Your task to perform on an android device: check storage Image 0: 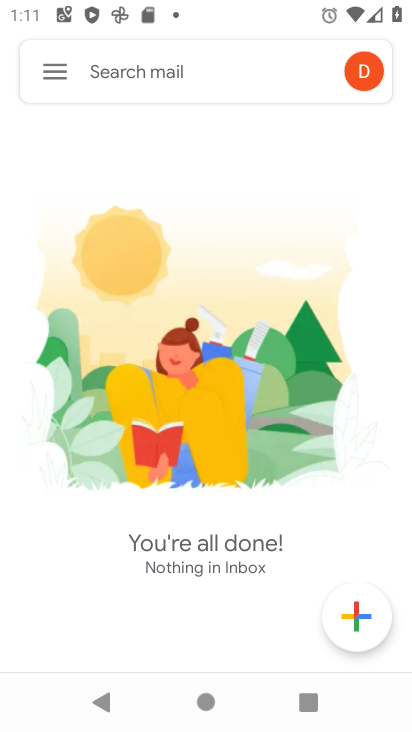
Step 0: press home button
Your task to perform on an android device: check storage Image 1: 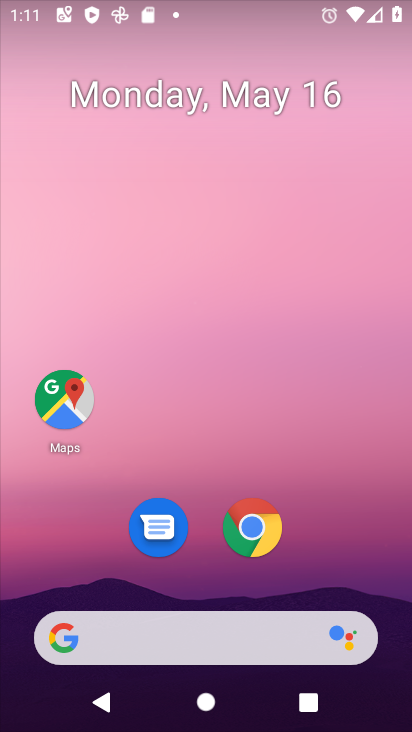
Step 1: drag from (307, 567) to (261, 67)
Your task to perform on an android device: check storage Image 2: 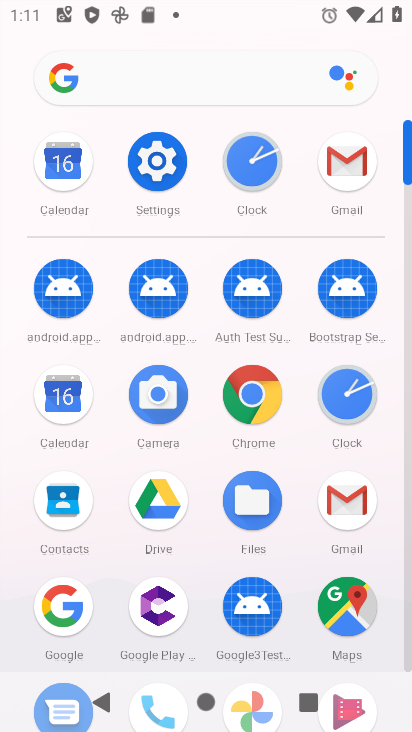
Step 2: click (156, 157)
Your task to perform on an android device: check storage Image 3: 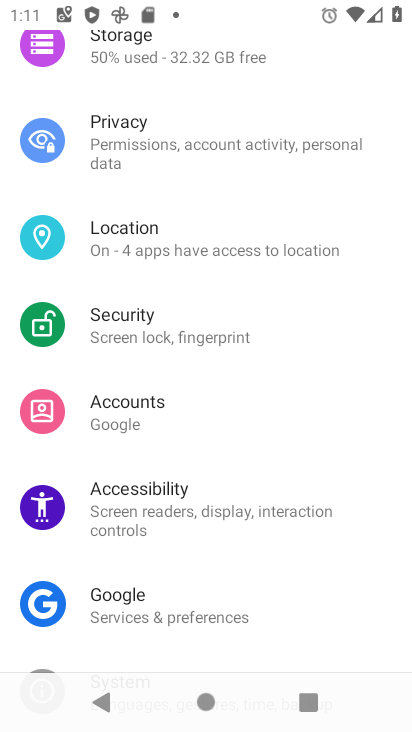
Step 3: drag from (180, 233) to (177, 554)
Your task to perform on an android device: check storage Image 4: 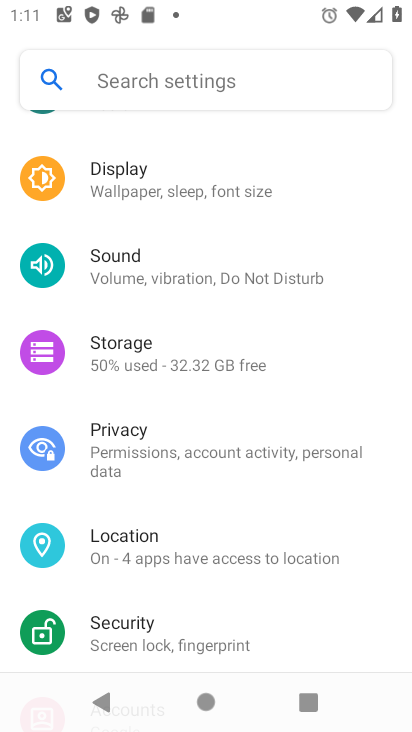
Step 4: click (179, 351)
Your task to perform on an android device: check storage Image 5: 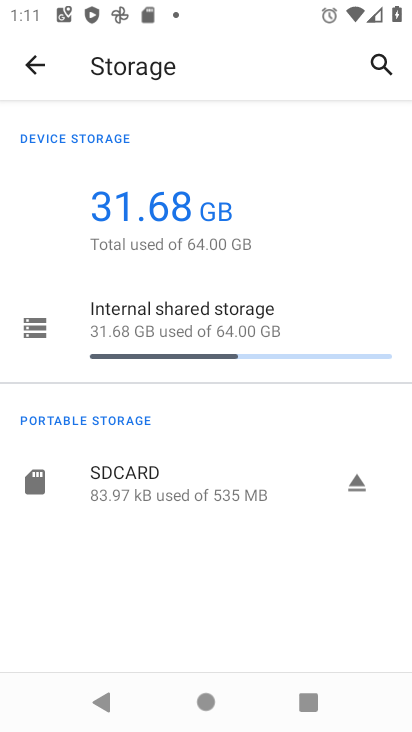
Step 5: task complete